Your task to perform on an android device: Go to privacy settings Image 0: 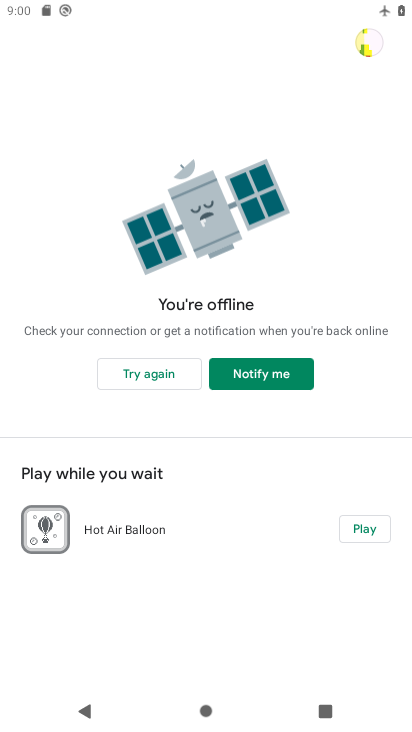
Step 0: press home button
Your task to perform on an android device: Go to privacy settings Image 1: 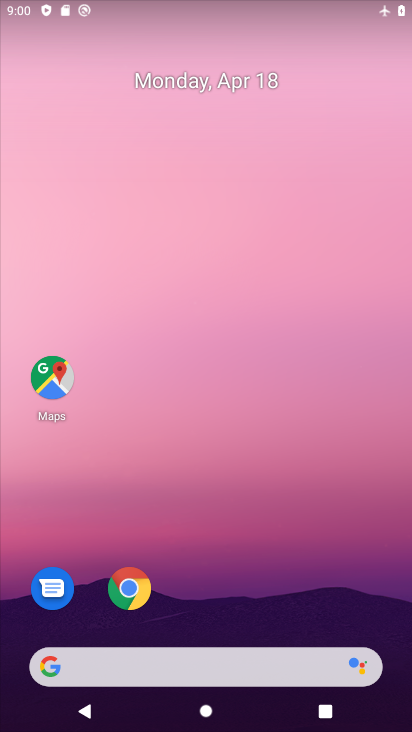
Step 1: drag from (302, 589) to (342, 184)
Your task to perform on an android device: Go to privacy settings Image 2: 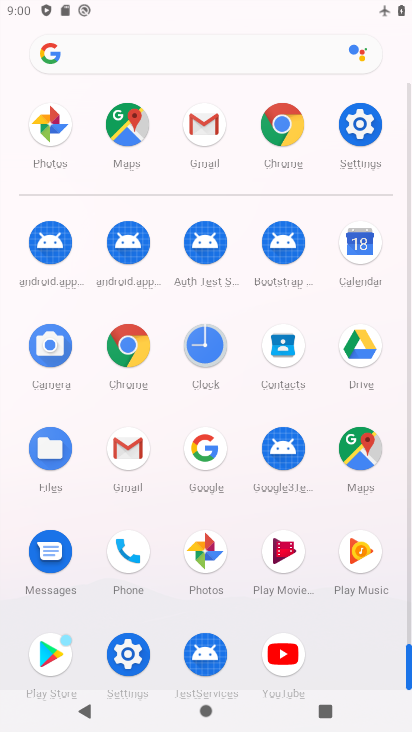
Step 2: click (293, 118)
Your task to perform on an android device: Go to privacy settings Image 3: 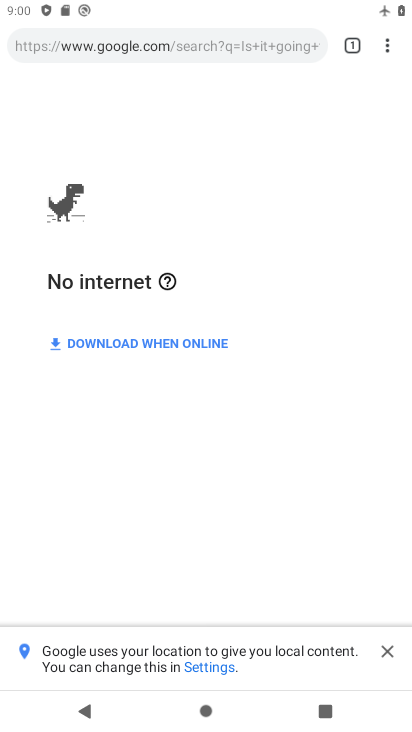
Step 3: click (392, 42)
Your task to perform on an android device: Go to privacy settings Image 4: 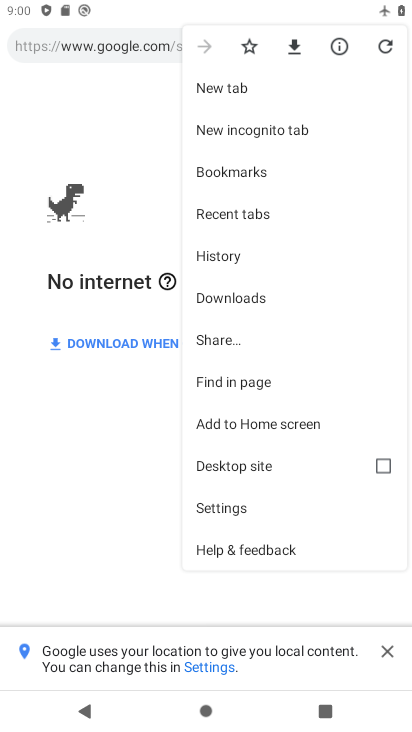
Step 4: click (230, 506)
Your task to perform on an android device: Go to privacy settings Image 5: 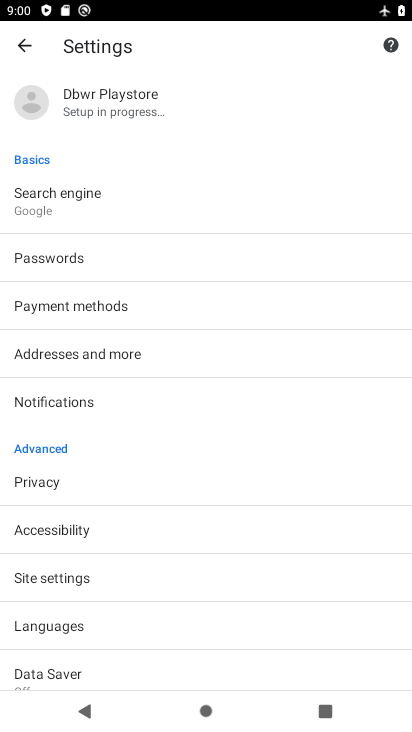
Step 5: click (157, 483)
Your task to perform on an android device: Go to privacy settings Image 6: 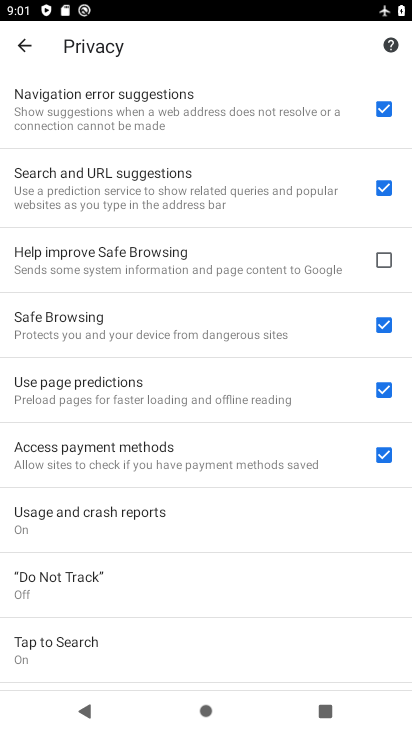
Step 6: task complete